Your task to perform on an android device: Go to notification settings Image 0: 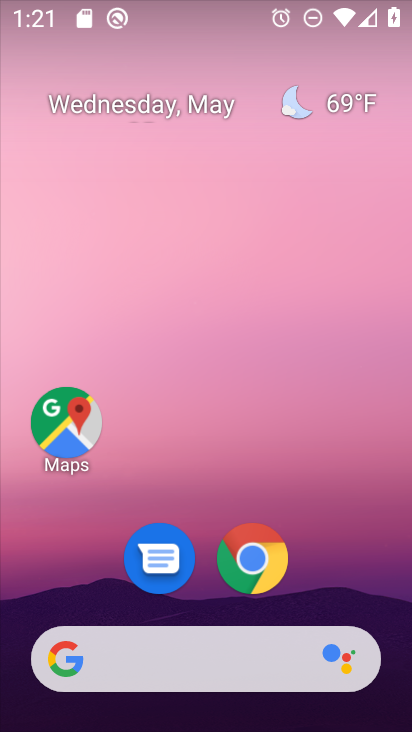
Step 0: drag from (398, 624) to (287, 69)
Your task to perform on an android device: Go to notification settings Image 1: 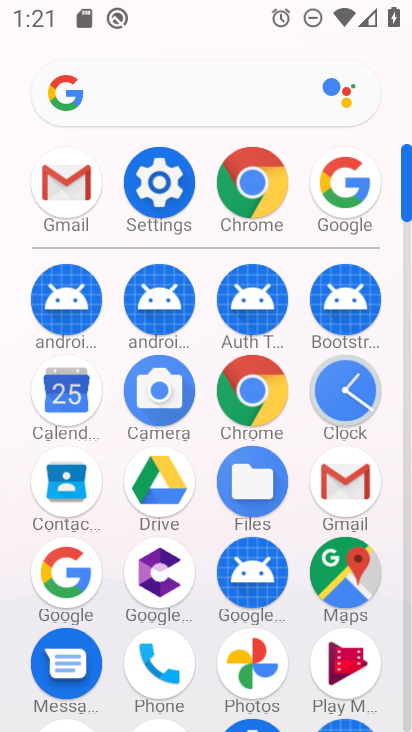
Step 1: click (153, 193)
Your task to perform on an android device: Go to notification settings Image 2: 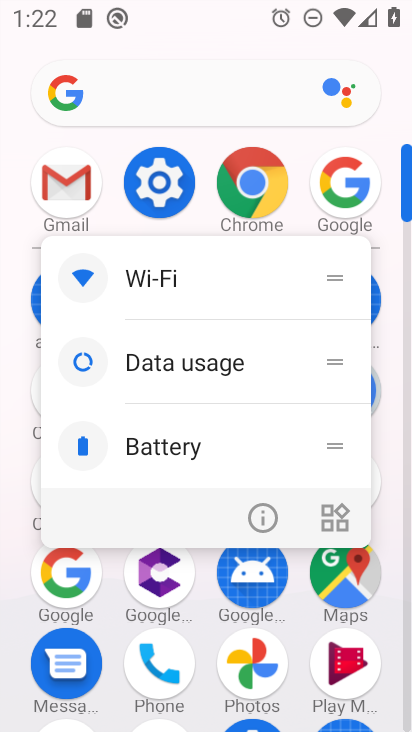
Step 2: click (153, 193)
Your task to perform on an android device: Go to notification settings Image 3: 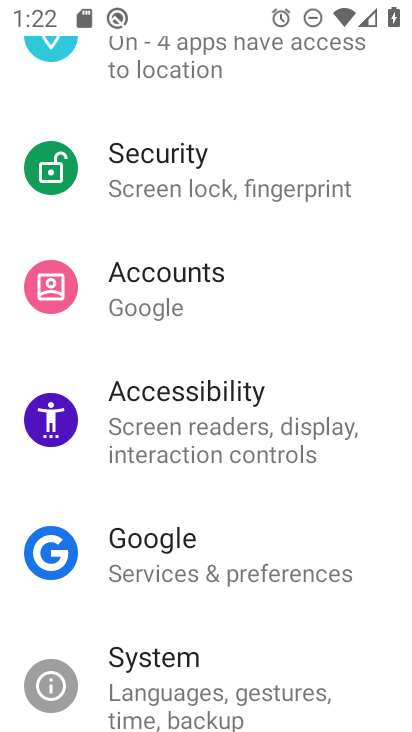
Step 3: drag from (184, 148) to (226, 633)
Your task to perform on an android device: Go to notification settings Image 4: 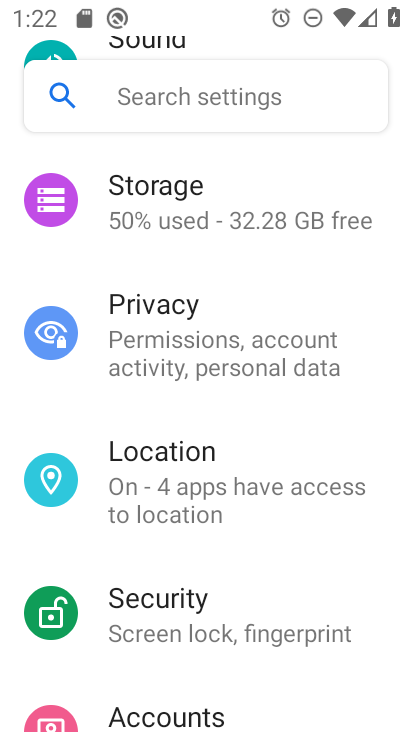
Step 4: drag from (232, 279) to (242, 665)
Your task to perform on an android device: Go to notification settings Image 5: 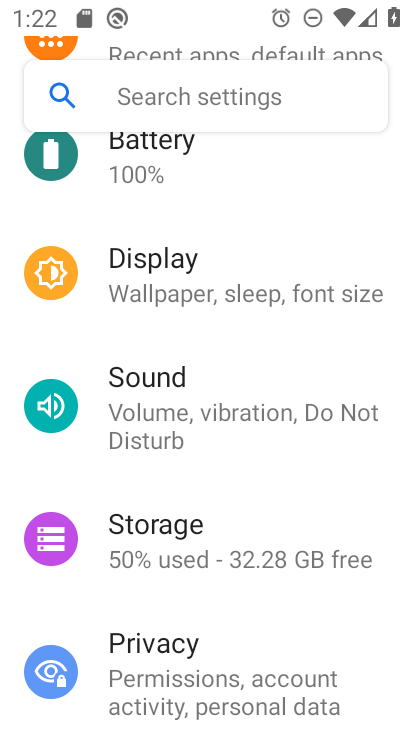
Step 5: drag from (260, 247) to (276, 635)
Your task to perform on an android device: Go to notification settings Image 6: 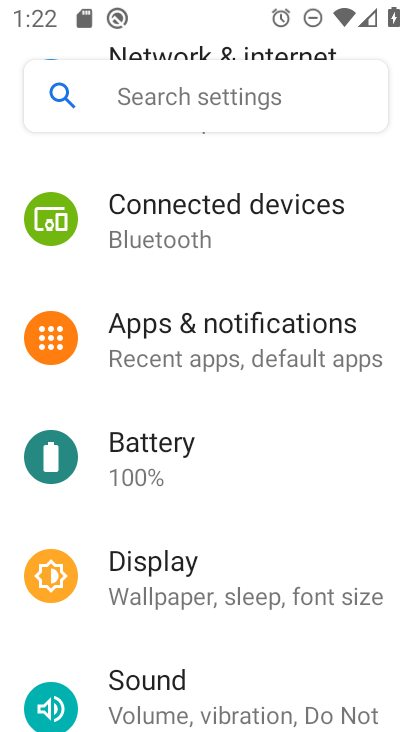
Step 6: click (282, 345)
Your task to perform on an android device: Go to notification settings Image 7: 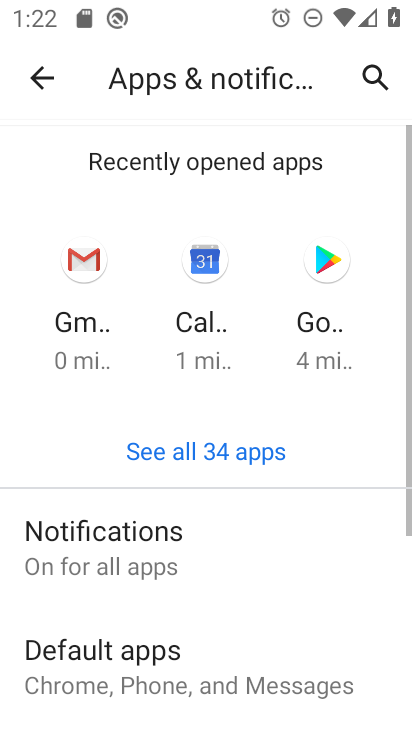
Step 7: click (220, 536)
Your task to perform on an android device: Go to notification settings Image 8: 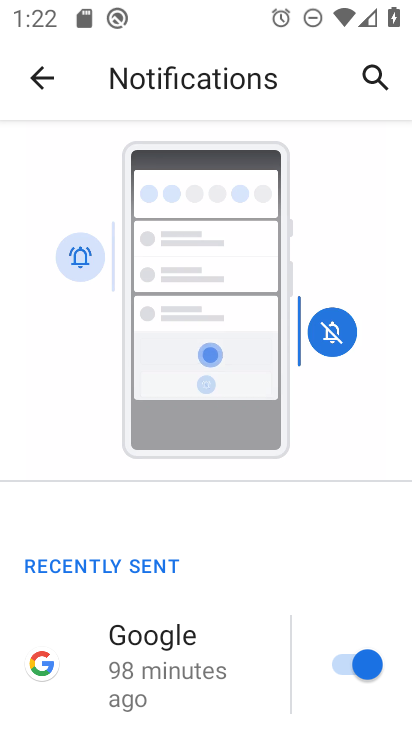
Step 8: task complete